Your task to perform on an android device: Go to calendar. Show me events next week Image 0: 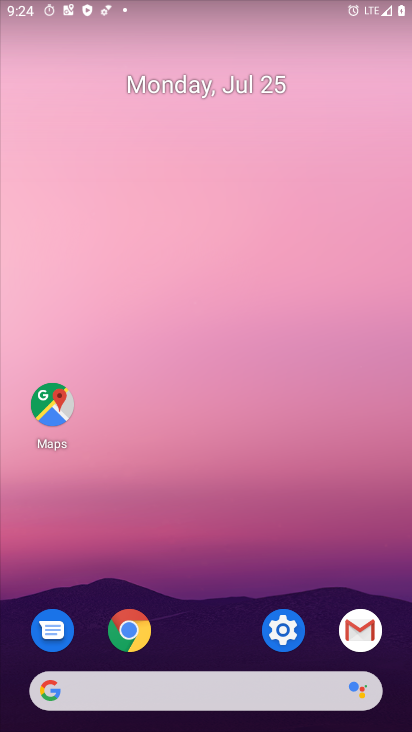
Step 0: drag from (215, 725) to (299, 249)
Your task to perform on an android device: Go to calendar. Show me events next week Image 1: 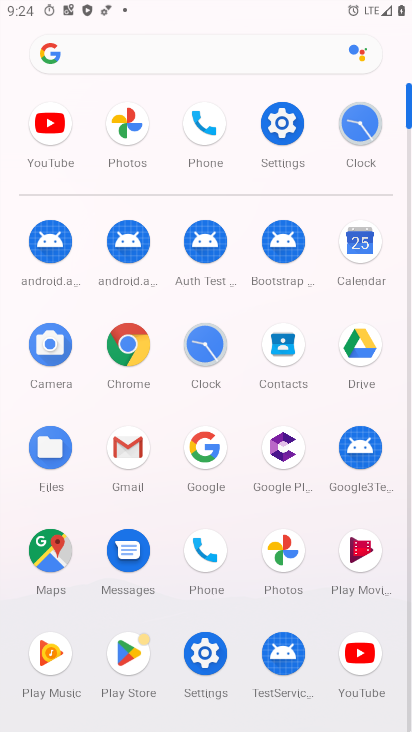
Step 1: click (355, 261)
Your task to perform on an android device: Go to calendar. Show me events next week Image 2: 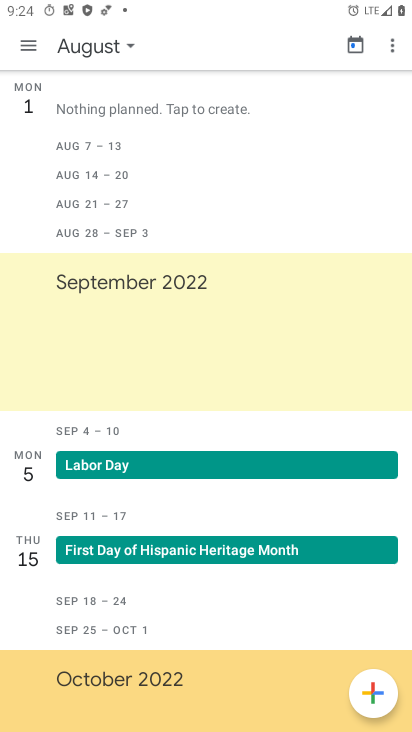
Step 2: click (33, 53)
Your task to perform on an android device: Go to calendar. Show me events next week Image 3: 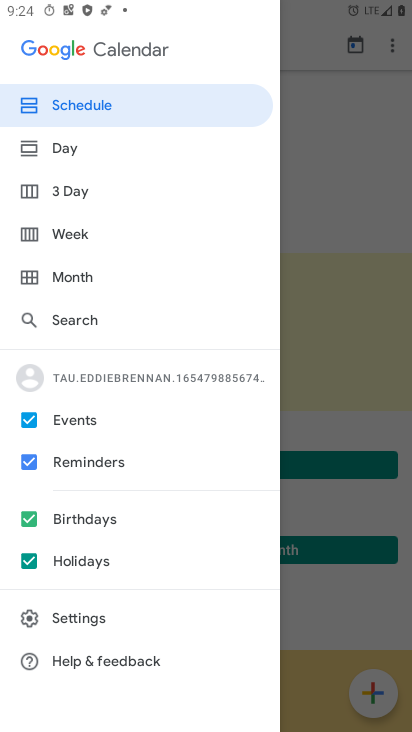
Step 3: click (72, 276)
Your task to perform on an android device: Go to calendar. Show me events next week Image 4: 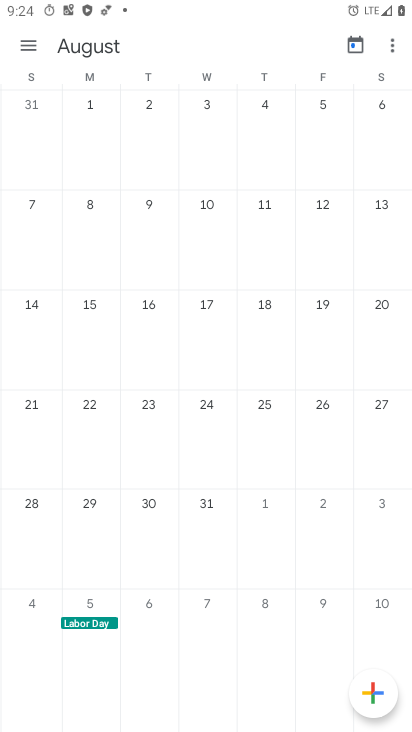
Step 4: click (110, 141)
Your task to perform on an android device: Go to calendar. Show me events next week Image 5: 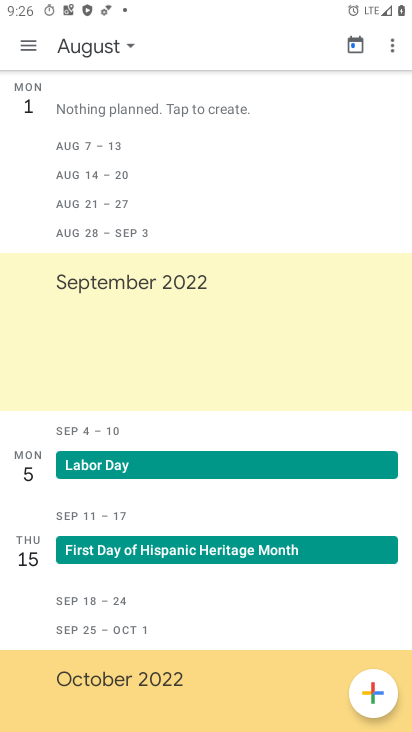
Step 5: task complete